Your task to perform on an android device: open wifi settings Image 0: 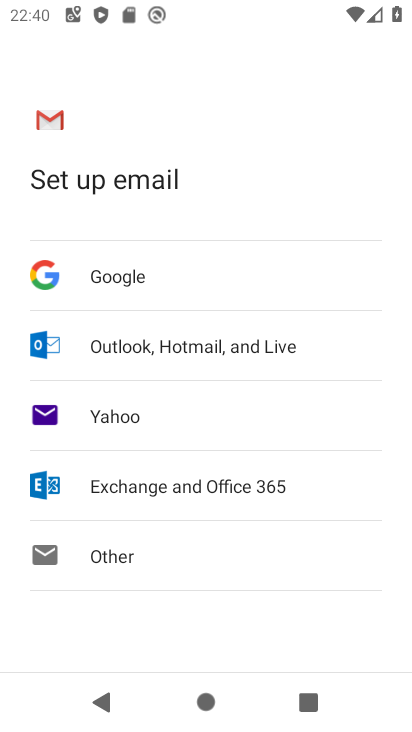
Step 0: press home button
Your task to perform on an android device: open wifi settings Image 1: 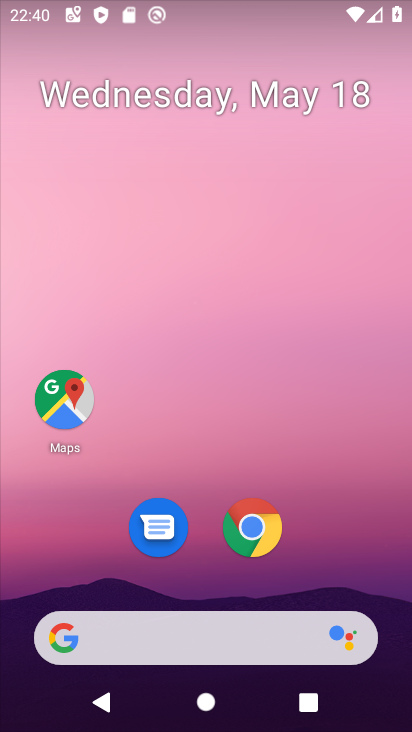
Step 1: drag from (326, 547) to (338, 250)
Your task to perform on an android device: open wifi settings Image 2: 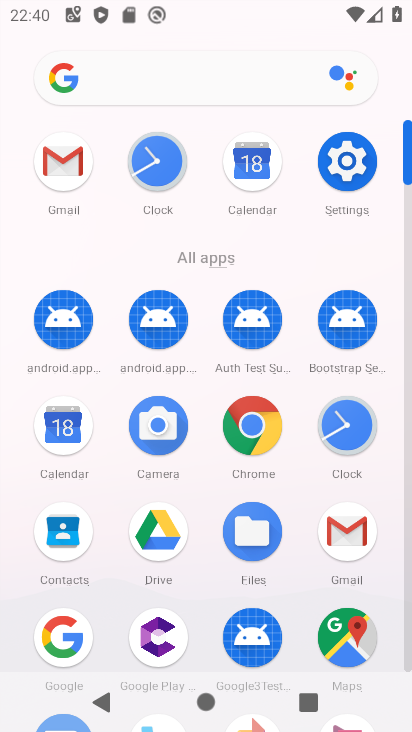
Step 2: click (360, 181)
Your task to perform on an android device: open wifi settings Image 3: 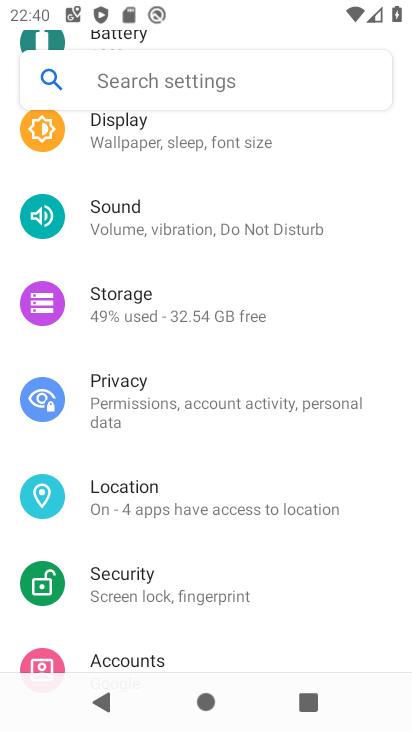
Step 3: drag from (241, 203) to (183, 459)
Your task to perform on an android device: open wifi settings Image 4: 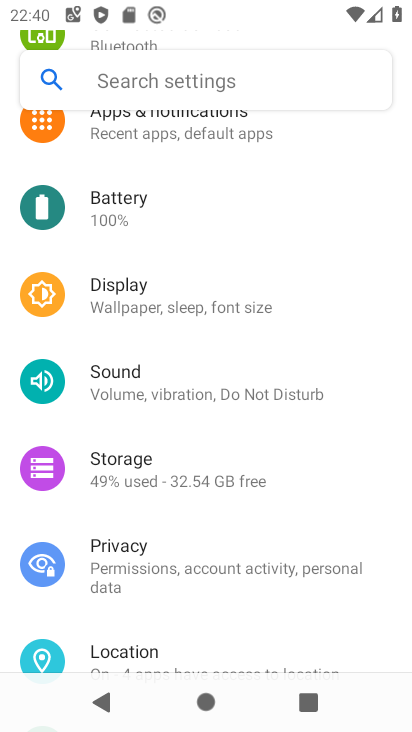
Step 4: drag from (227, 147) to (224, 383)
Your task to perform on an android device: open wifi settings Image 5: 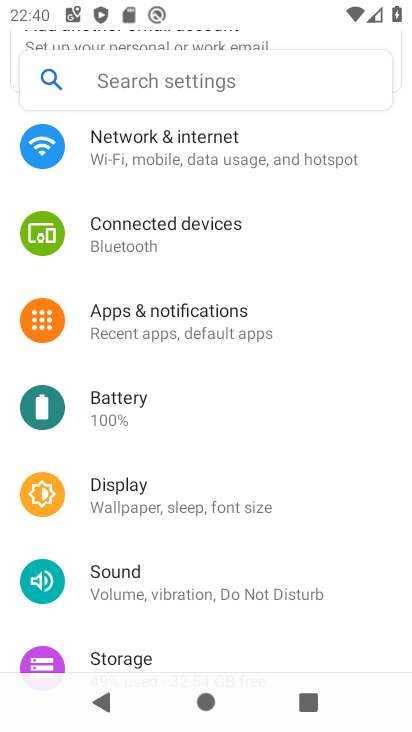
Step 5: click (253, 168)
Your task to perform on an android device: open wifi settings Image 6: 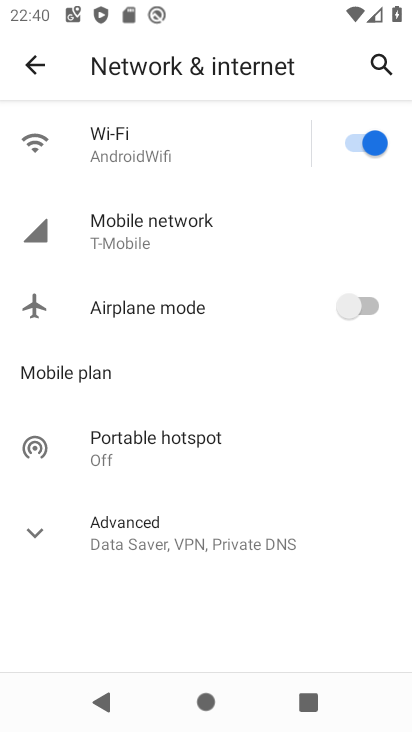
Step 6: click (186, 127)
Your task to perform on an android device: open wifi settings Image 7: 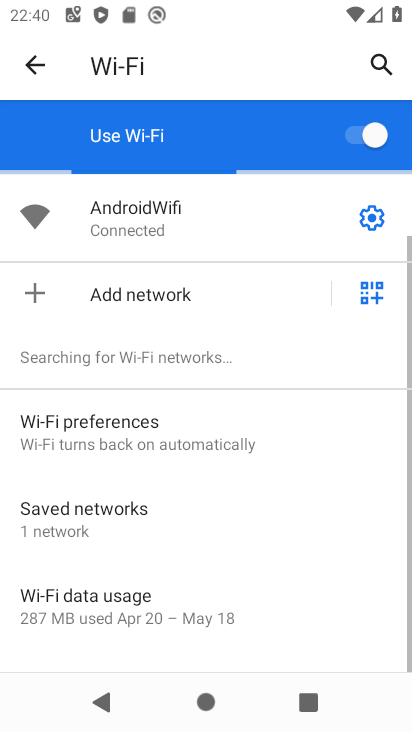
Step 7: task complete